Your task to perform on an android device: Open accessibility settings Image 0: 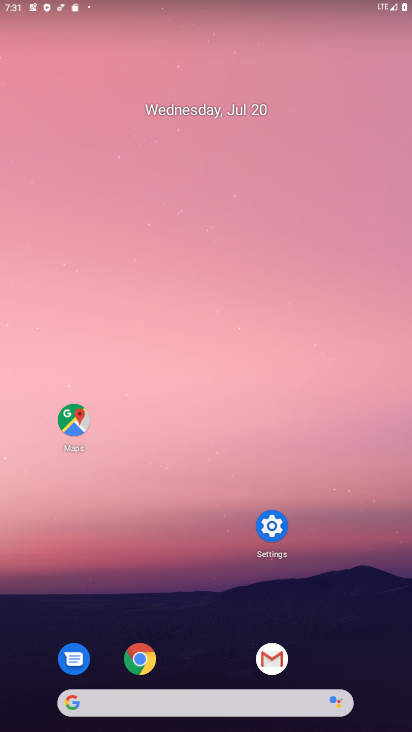
Step 0: click (273, 547)
Your task to perform on an android device: Open accessibility settings Image 1: 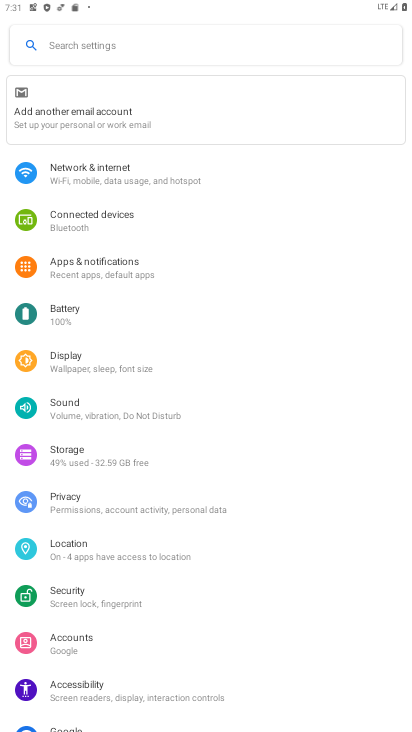
Step 1: click (115, 50)
Your task to perform on an android device: Open accessibility settings Image 2: 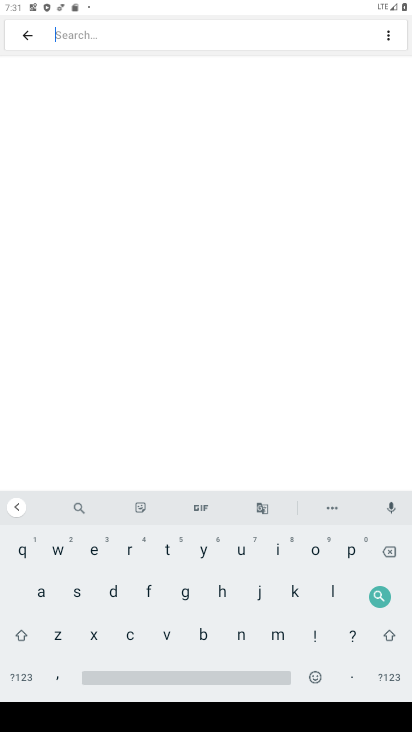
Step 2: click (36, 593)
Your task to perform on an android device: Open accessibility settings Image 3: 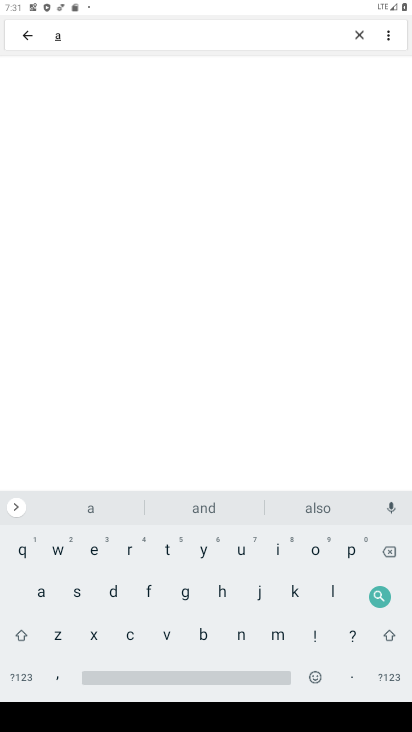
Step 3: click (124, 634)
Your task to perform on an android device: Open accessibility settings Image 4: 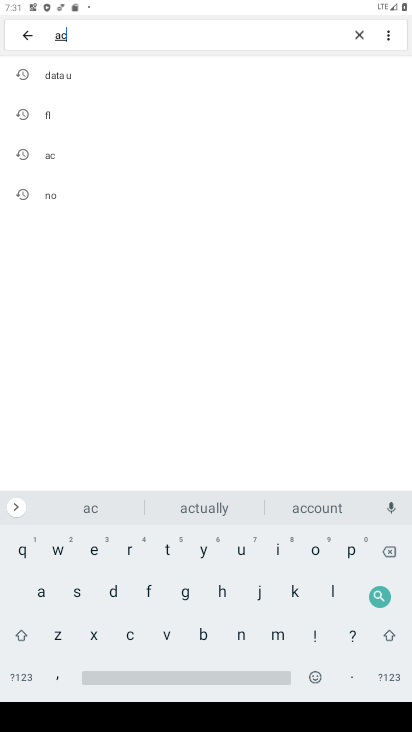
Step 4: click (124, 627)
Your task to perform on an android device: Open accessibility settings Image 5: 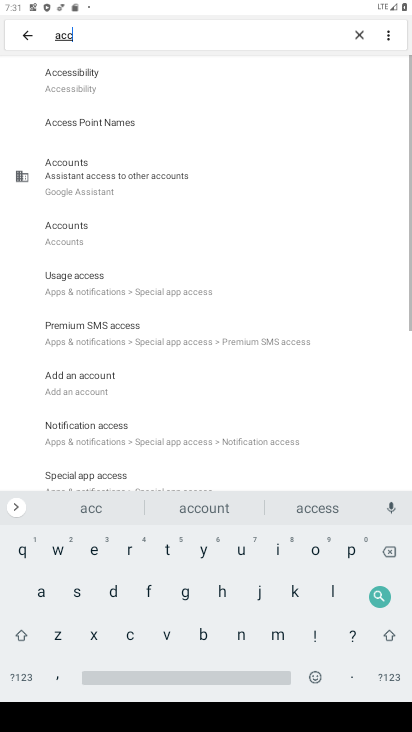
Step 5: click (123, 76)
Your task to perform on an android device: Open accessibility settings Image 6: 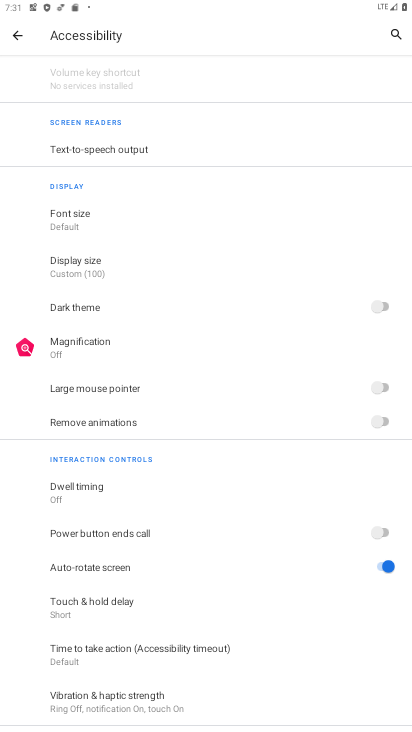
Step 6: task complete